Your task to perform on an android device: How do I get to the nearest Lowe's? Image 0: 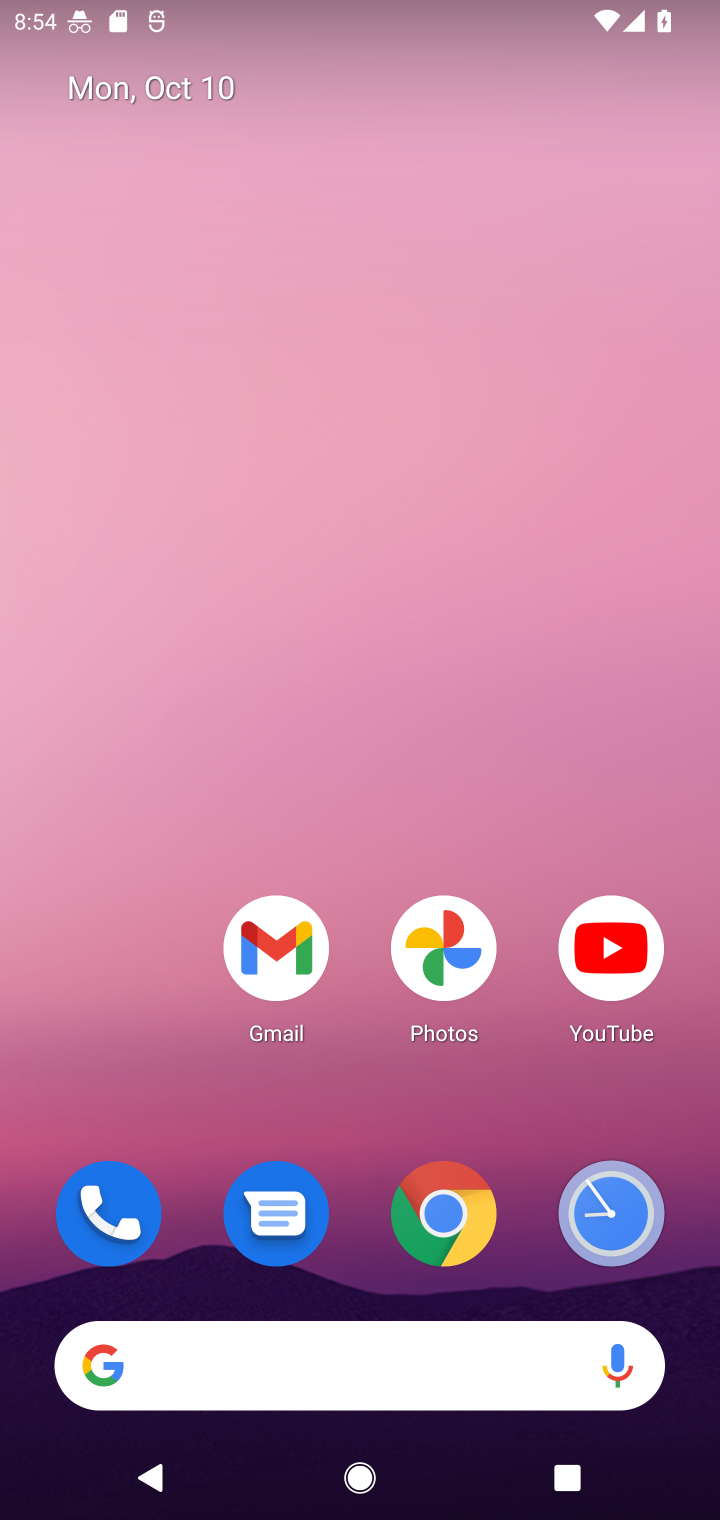
Step 0: click (259, 1381)
Your task to perform on an android device: How do I get to the nearest Lowe's? Image 1: 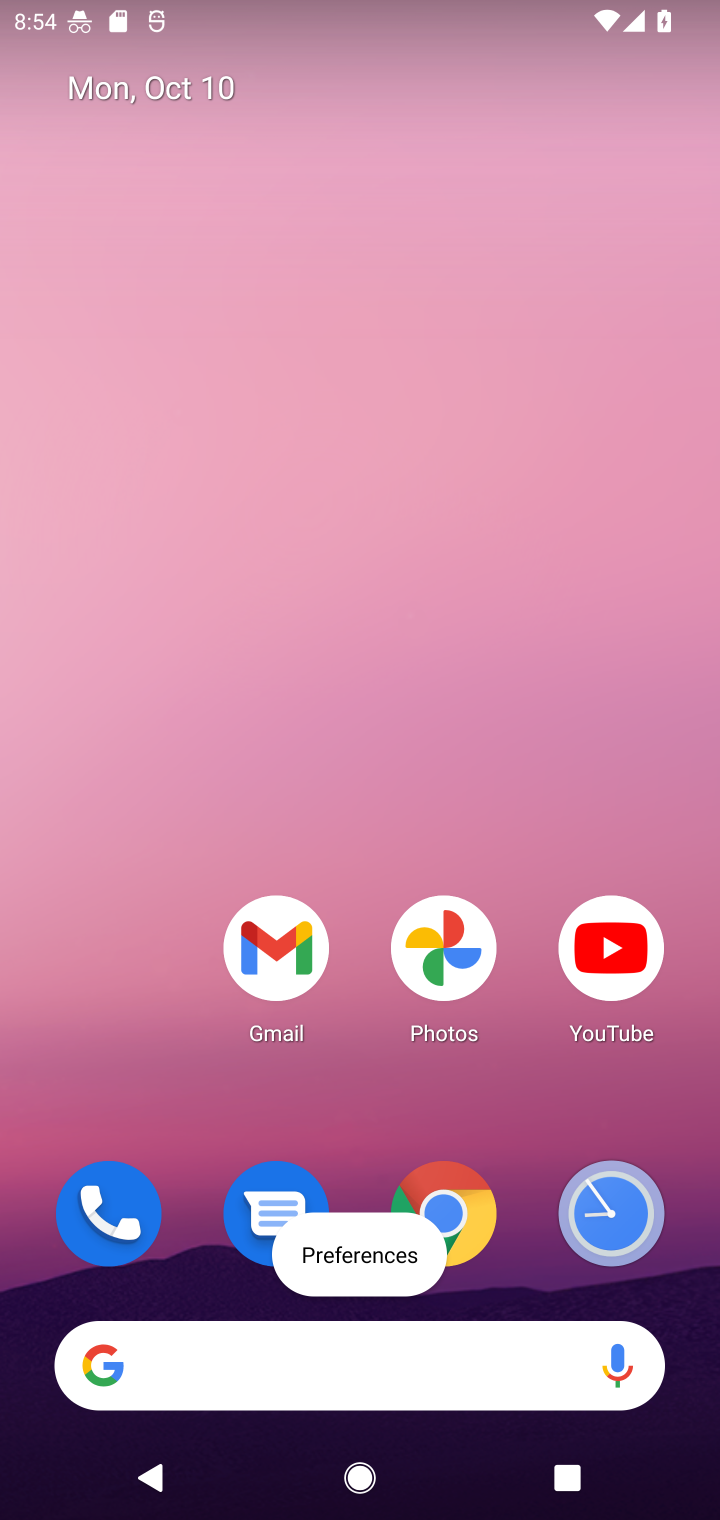
Step 1: click (344, 1338)
Your task to perform on an android device: How do I get to the nearest Lowe's? Image 2: 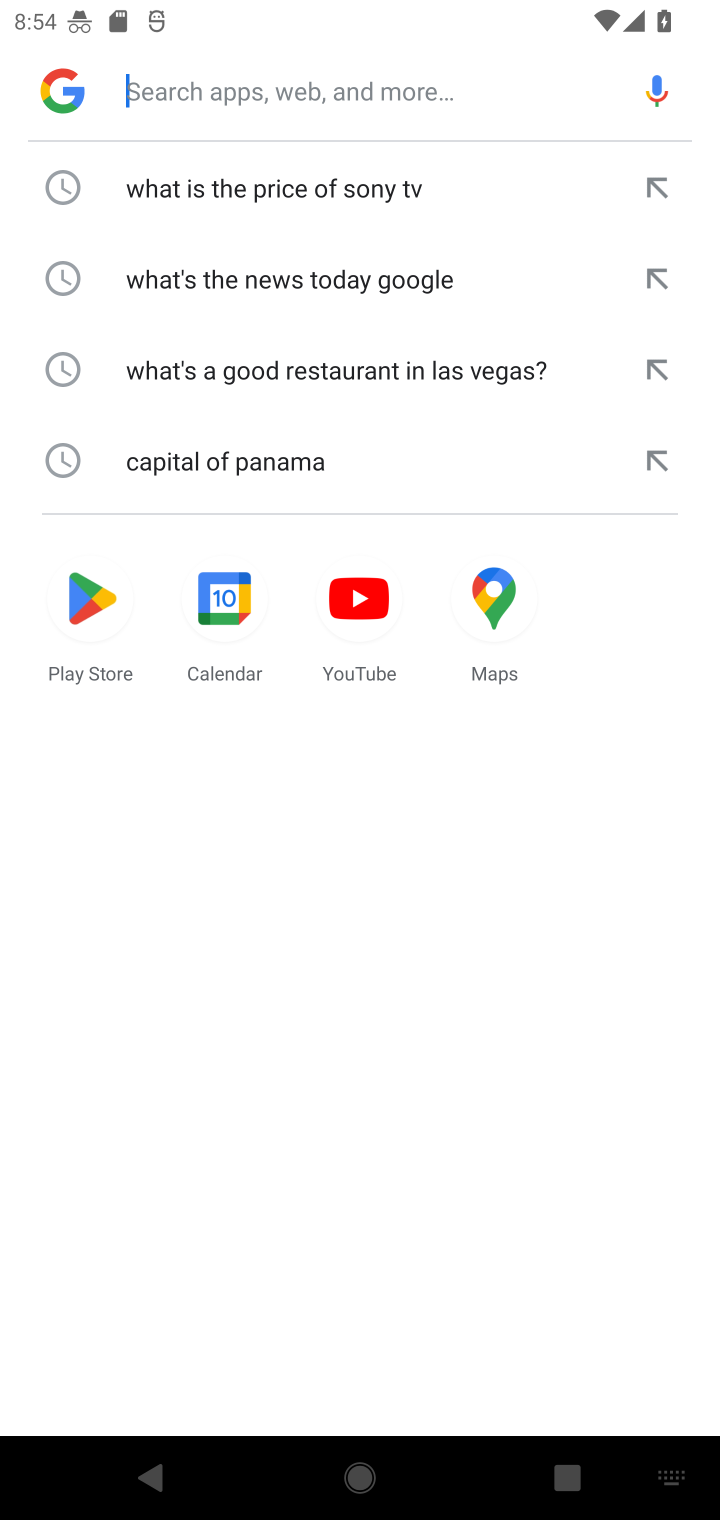
Step 2: click (168, 93)
Your task to perform on an android device: How do I get to the nearest Lowe's? Image 3: 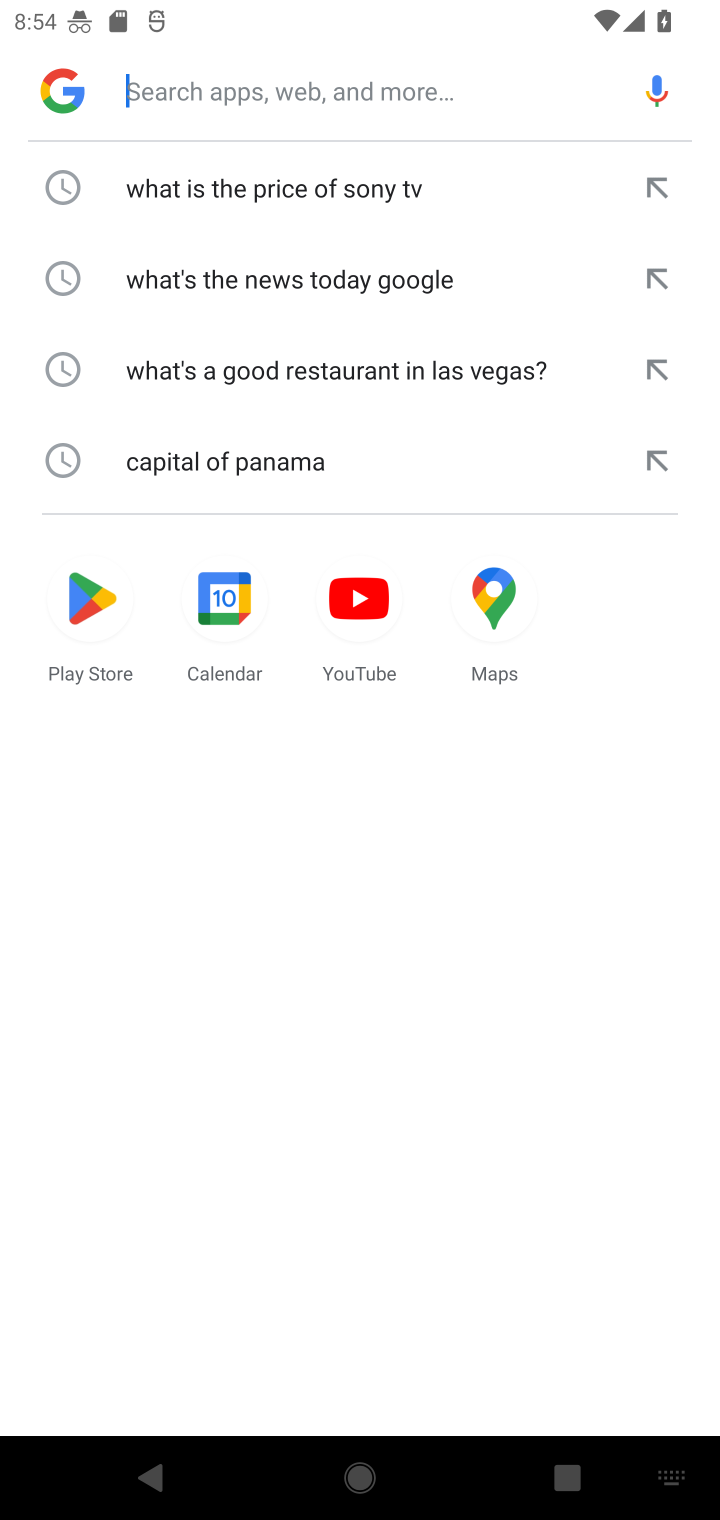
Step 3: type "How do I get to the nearest Lowe's?"
Your task to perform on an android device: How do I get to the nearest Lowe's? Image 4: 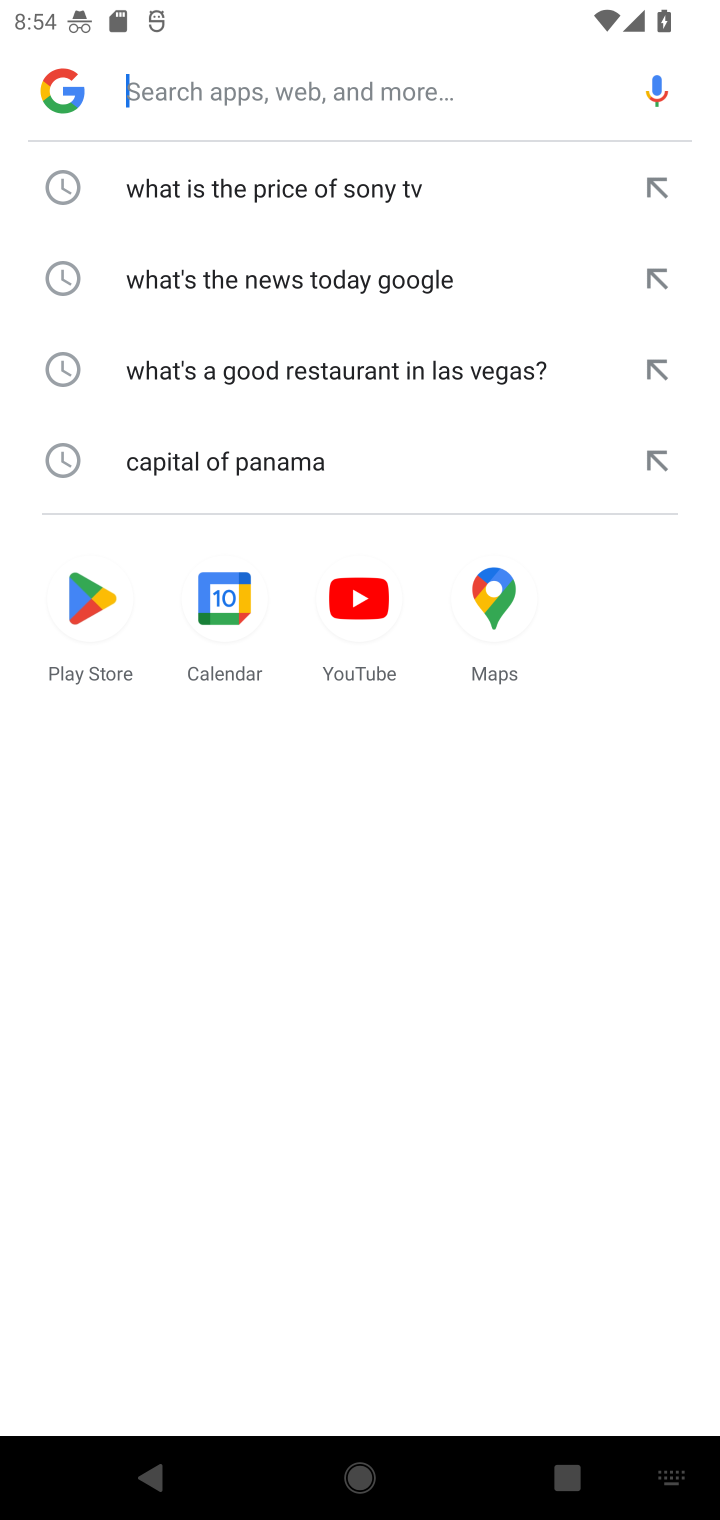
Step 4: click (465, 1146)
Your task to perform on an android device: How do I get to the nearest Lowe's? Image 5: 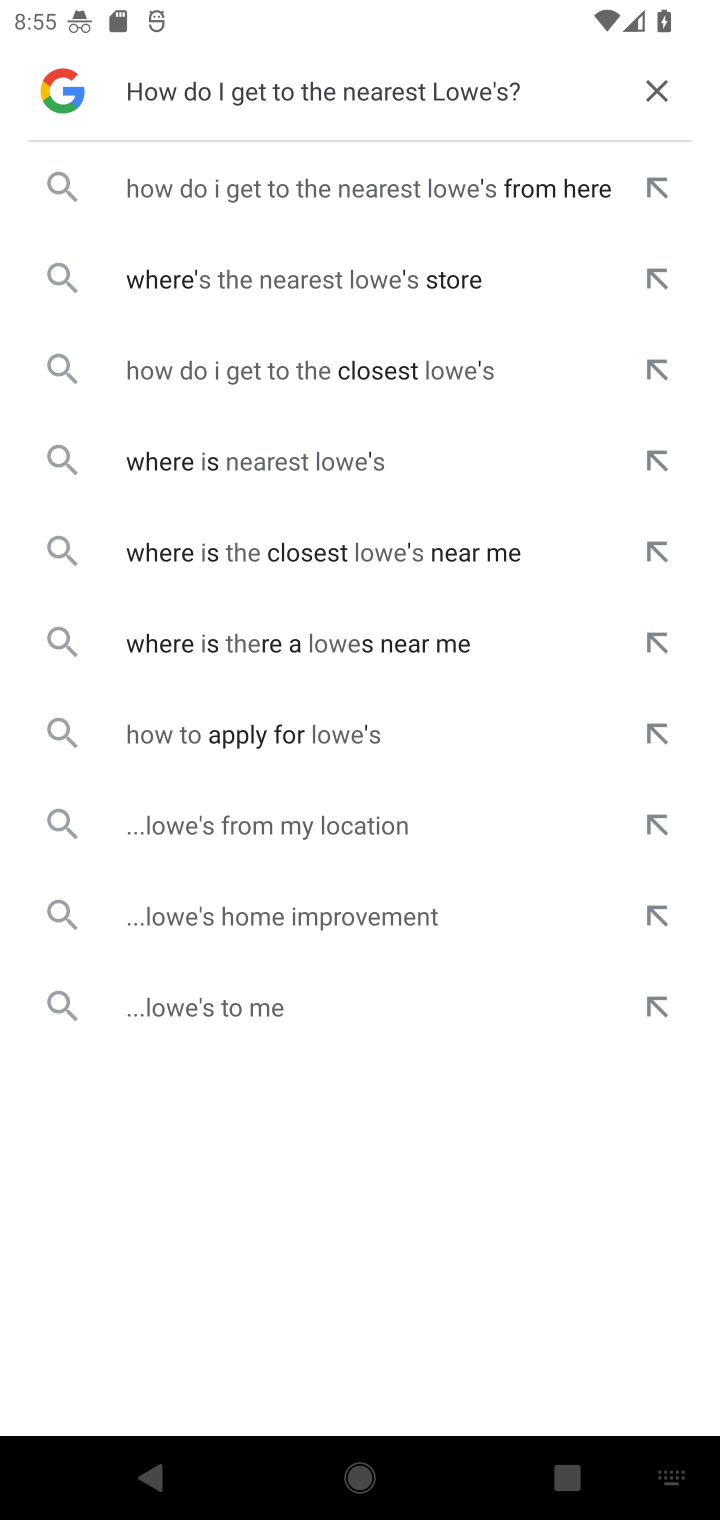
Step 5: click (367, 272)
Your task to perform on an android device: How do I get to the nearest Lowe's? Image 6: 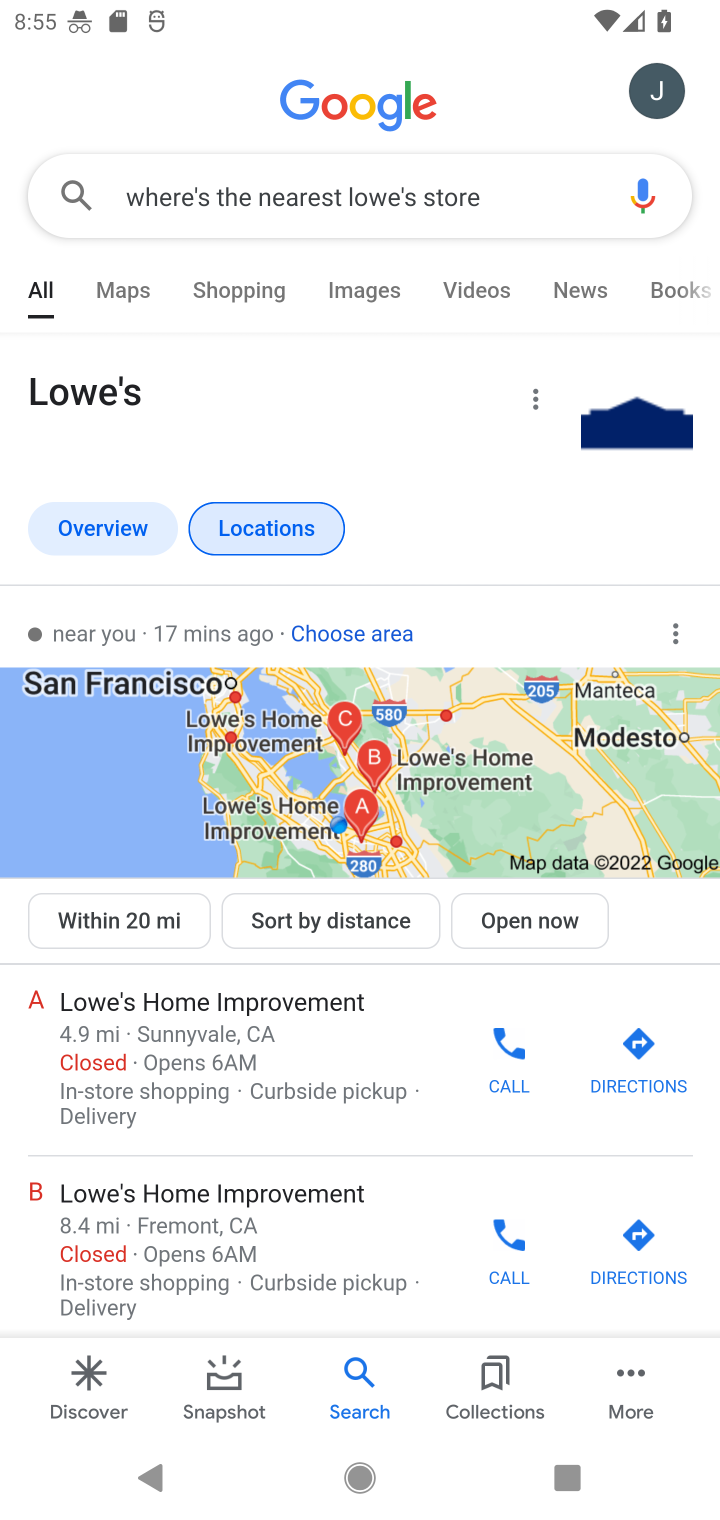
Step 6: task complete